Your task to perform on an android device: check battery use Image 0: 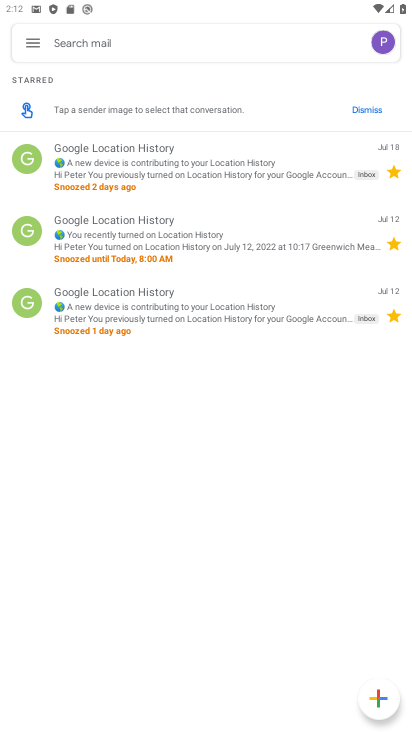
Step 0: press home button
Your task to perform on an android device: check battery use Image 1: 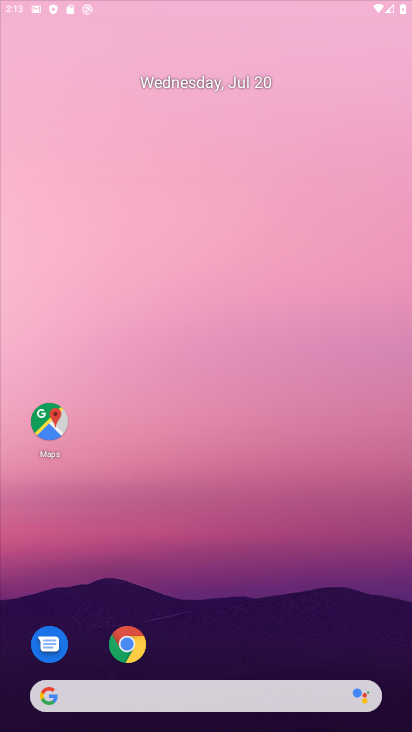
Step 1: drag from (323, 618) to (244, 135)
Your task to perform on an android device: check battery use Image 2: 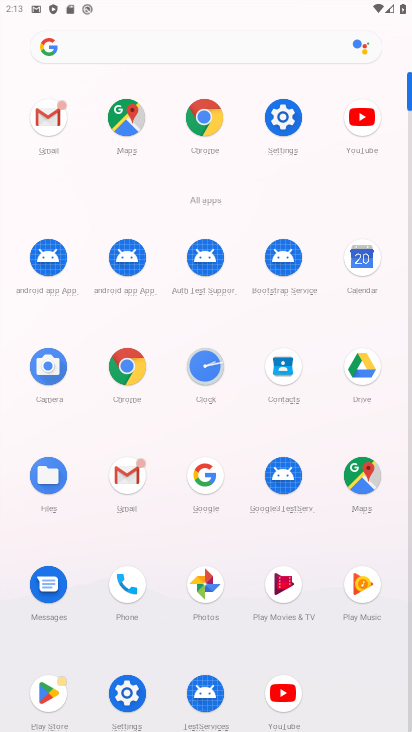
Step 2: click (293, 141)
Your task to perform on an android device: check battery use Image 3: 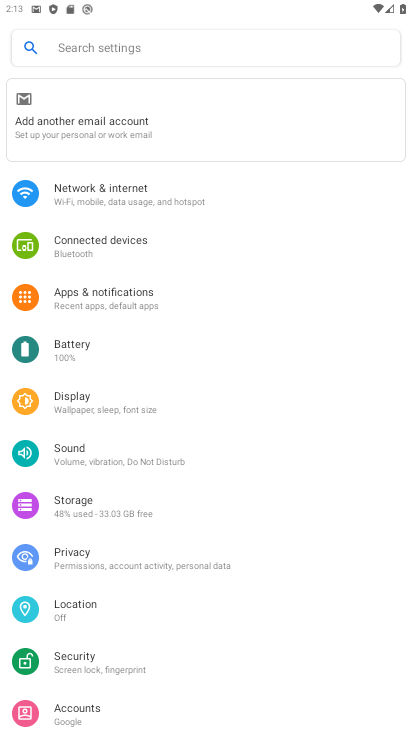
Step 3: click (59, 342)
Your task to perform on an android device: check battery use Image 4: 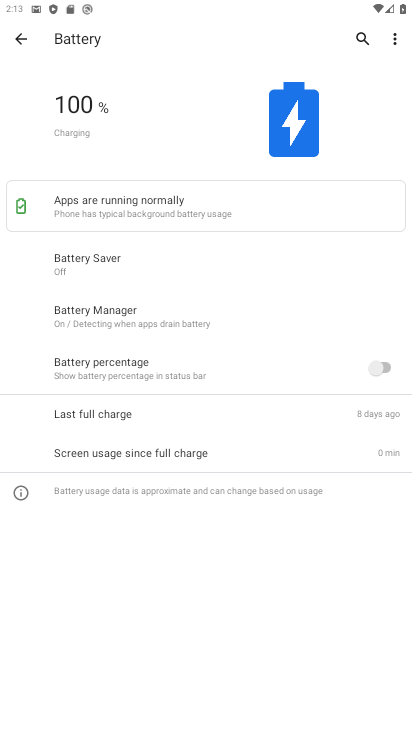
Step 4: task complete